Your task to perform on an android device: open app "Microsoft Authenticator" (install if not already installed), go to login, and select forgot password Image 0: 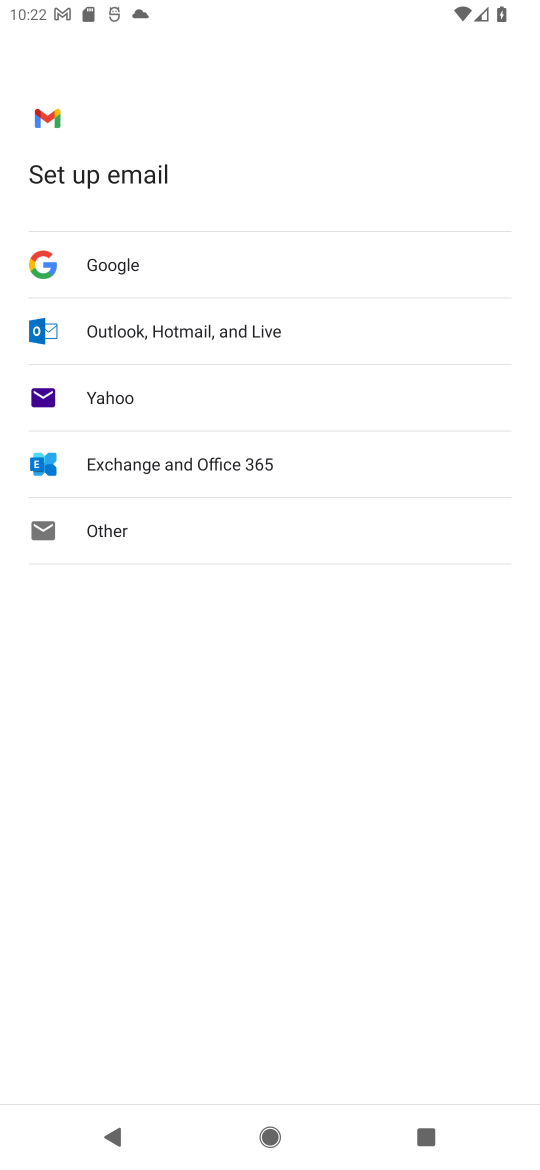
Step 0: press home button
Your task to perform on an android device: open app "Microsoft Authenticator" (install if not already installed), go to login, and select forgot password Image 1: 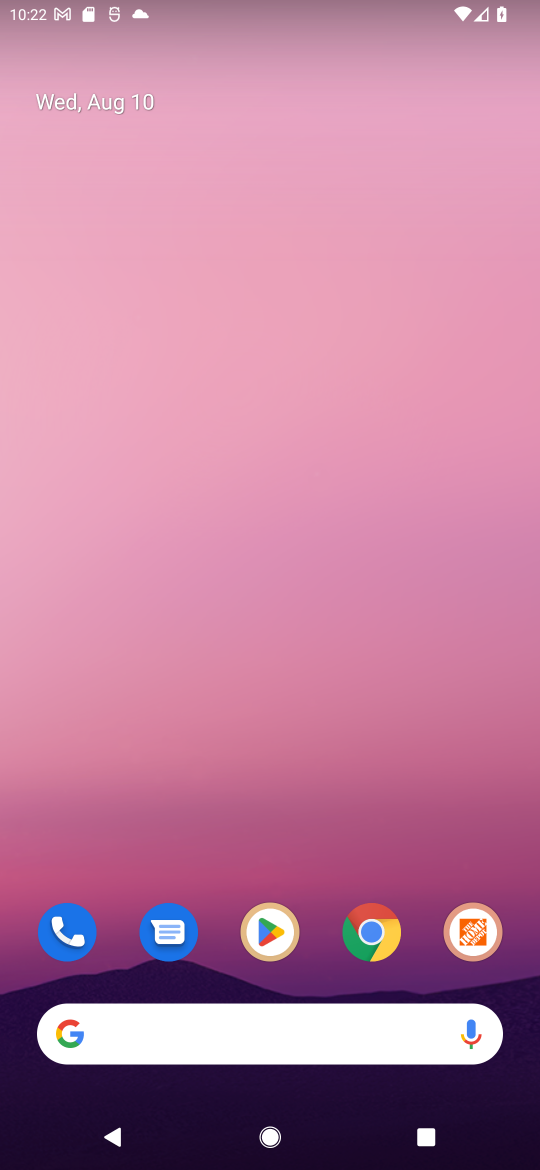
Step 1: click (282, 940)
Your task to perform on an android device: open app "Microsoft Authenticator" (install if not already installed), go to login, and select forgot password Image 2: 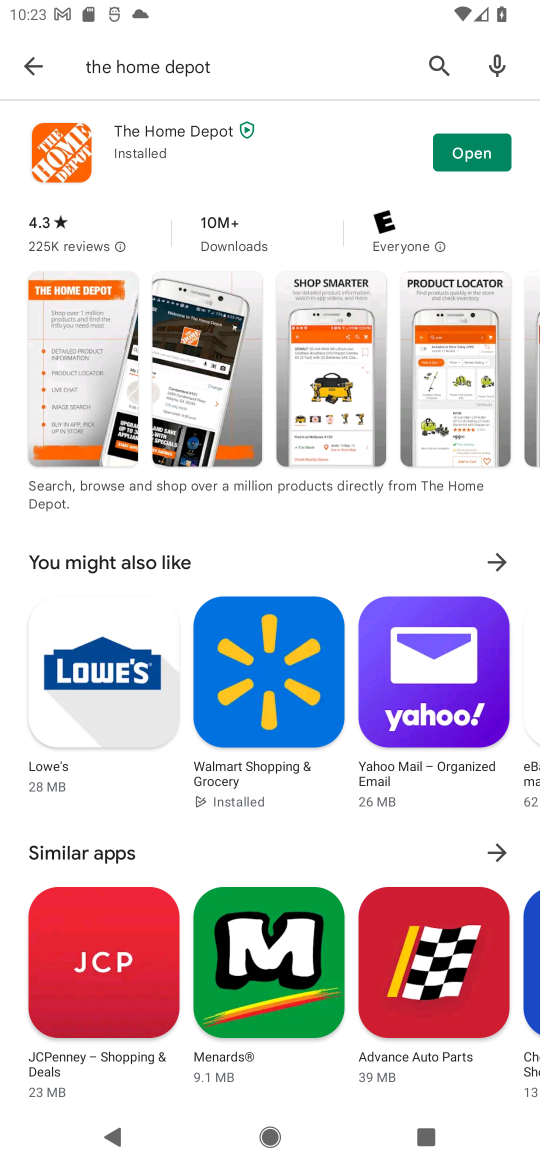
Step 2: click (419, 69)
Your task to perform on an android device: open app "Microsoft Authenticator" (install if not already installed), go to login, and select forgot password Image 3: 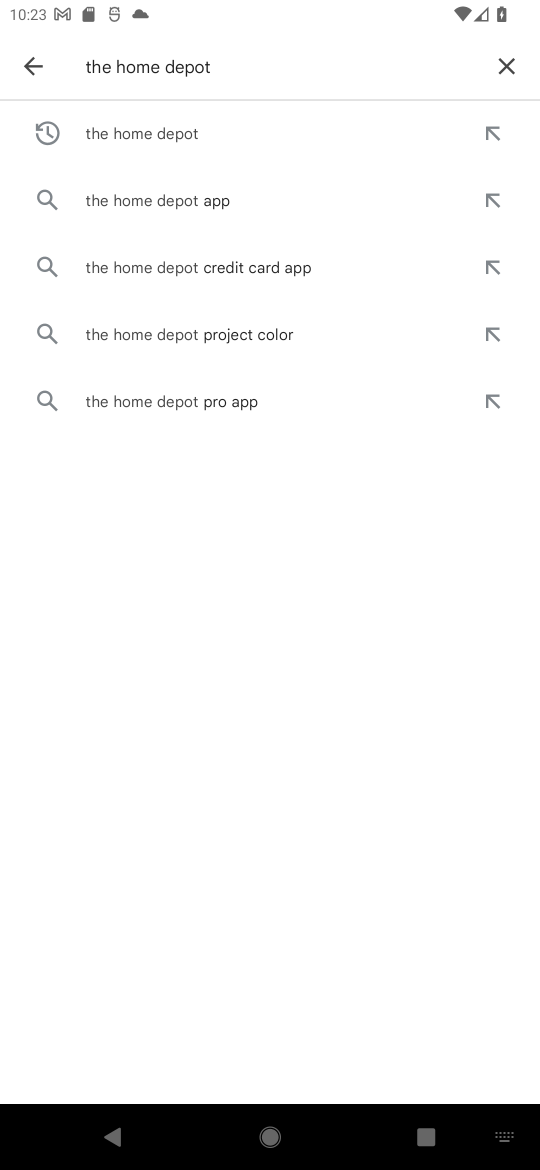
Step 3: click (514, 70)
Your task to perform on an android device: open app "Microsoft Authenticator" (install if not already installed), go to login, and select forgot password Image 4: 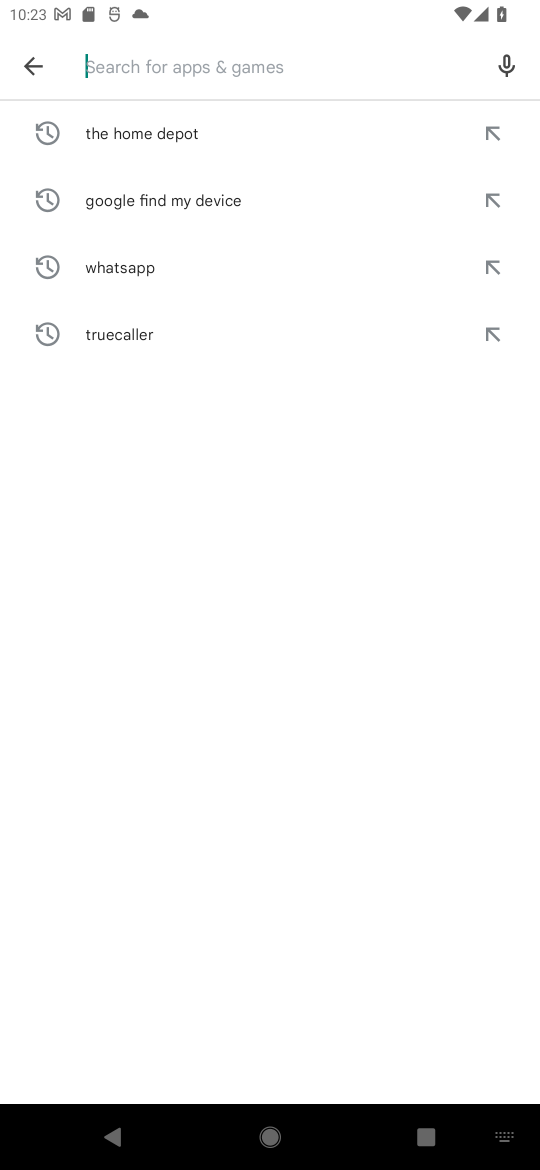
Step 4: type "microsoft authenticator"
Your task to perform on an android device: open app "Microsoft Authenticator" (install if not already installed), go to login, and select forgot password Image 5: 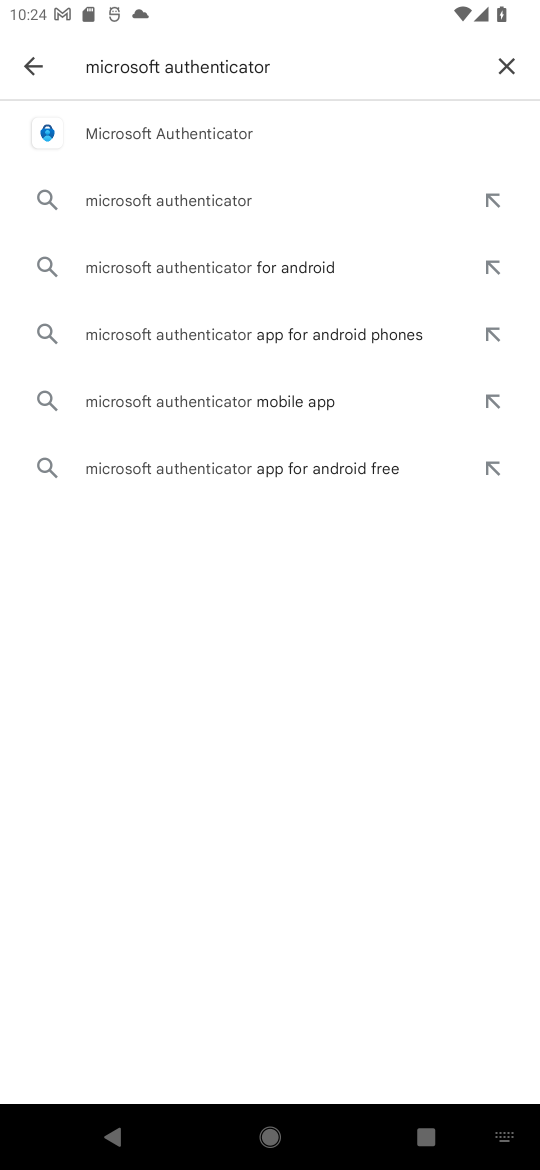
Step 5: click (240, 126)
Your task to perform on an android device: open app "Microsoft Authenticator" (install if not already installed), go to login, and select forgot password Image 6: 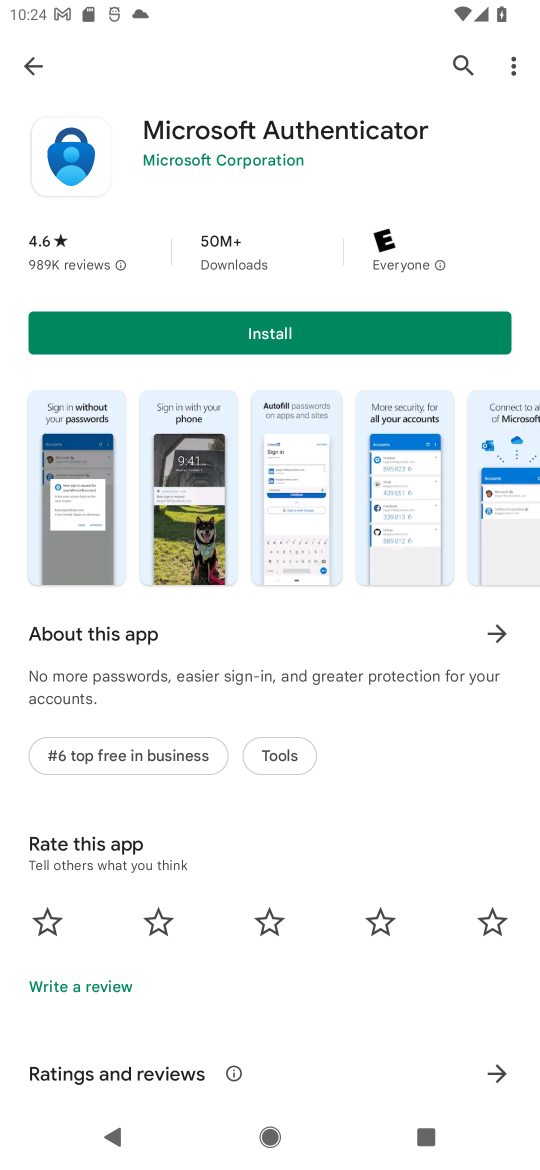
Step 6: click (317, 326)
Your task to perform on an android device: open app "Microsoft Authenticator" (install if not already installed), go to login, and select forgot password Image 7: 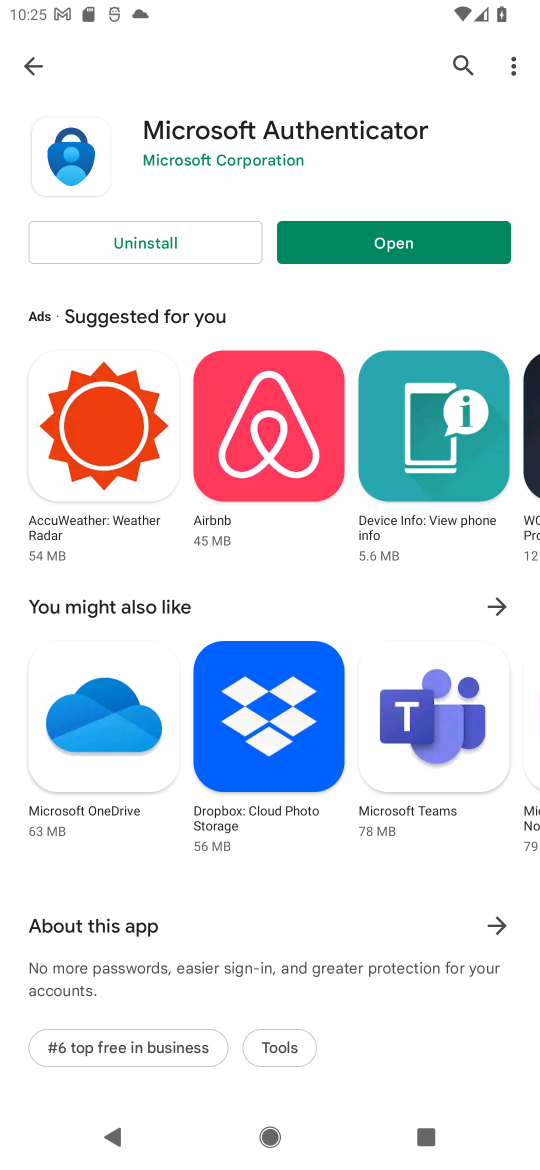
Step 7: click (362, 235)
Your task to perform on an android device: open app "Microsoft Authenticator" (install if not already installed), go to login, and select forgot password Image 8: 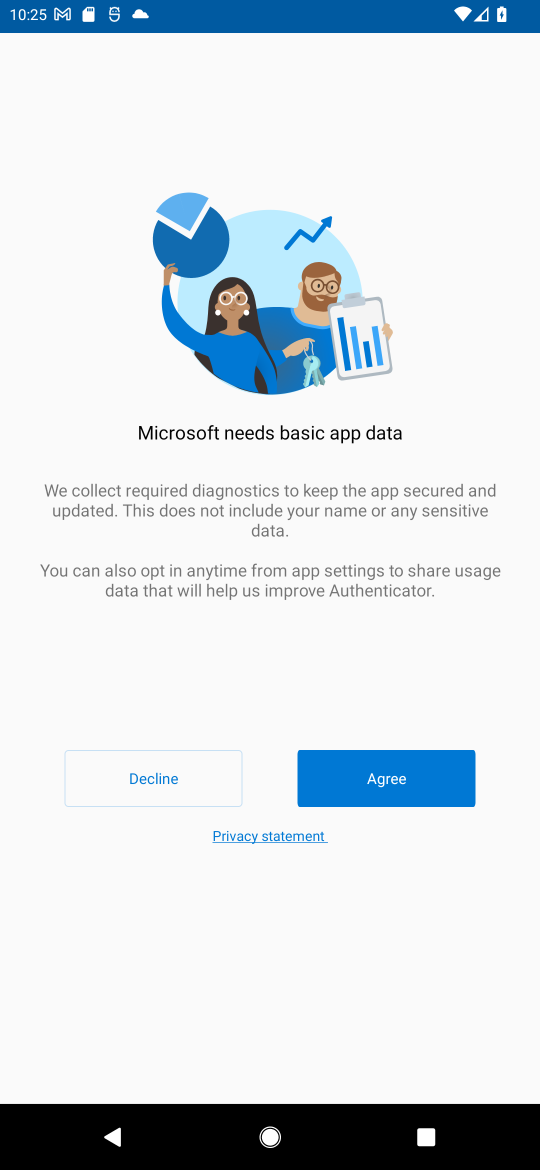
Step 8: click (396, 772)
Your task to perform on an android device: open app "Microsoft Authenticator" (install if not already installed), go to login, and select forgot password Image 9: 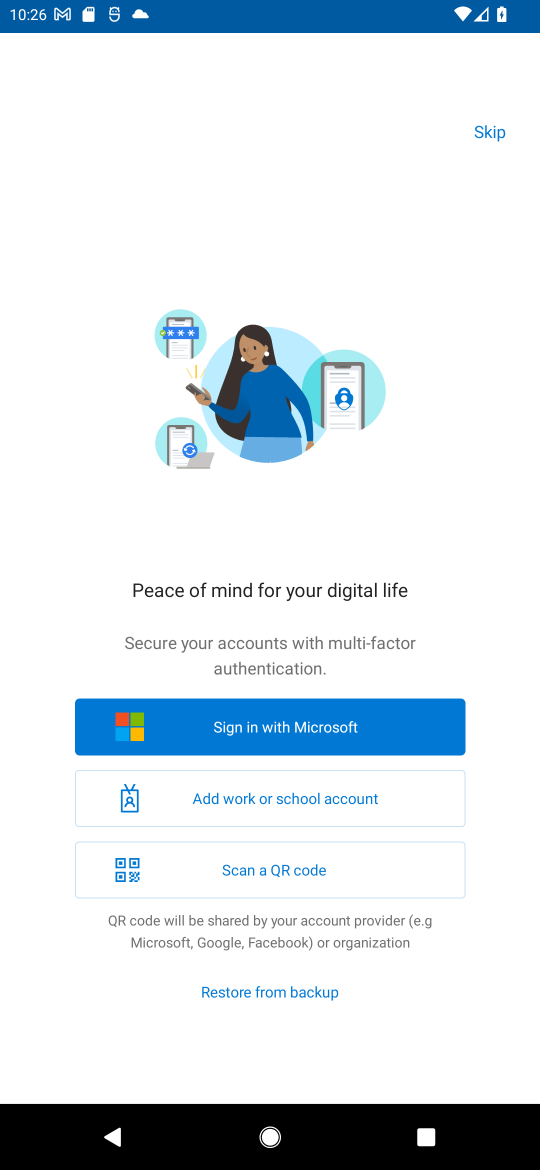
Step 9: click (493, 127)
Your task to perform on an android device: open app "Microsoft Authenticator" (install if not already installed), go to login, and select forgot password Image 10: 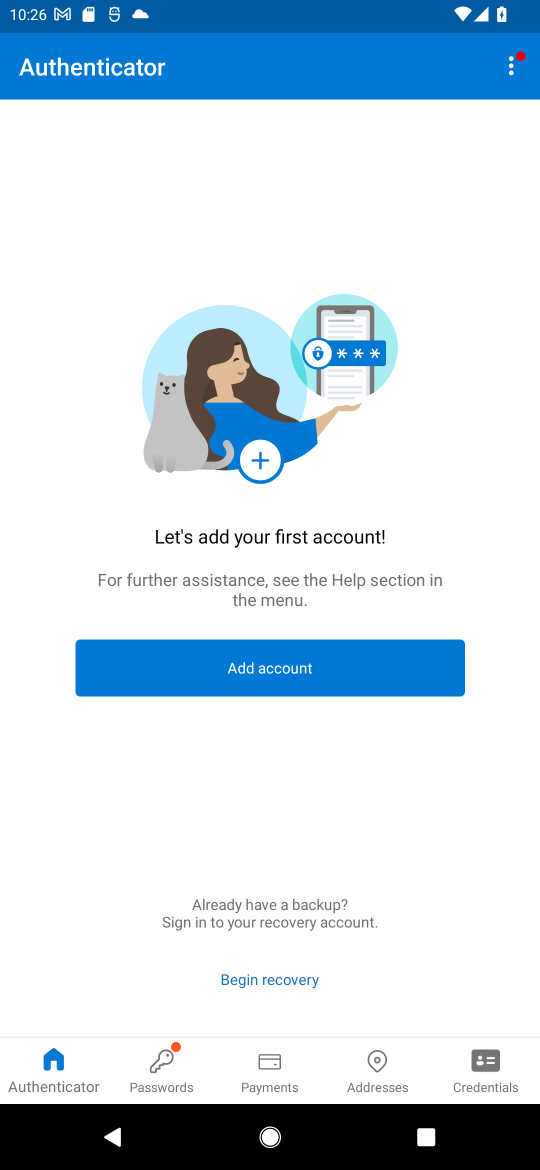
Step 10: click (505, 76)
Your task to perform on an android device: open app "Microsoft Authenticator" (install if not already installed), go to login, and select forgot password Image 11: 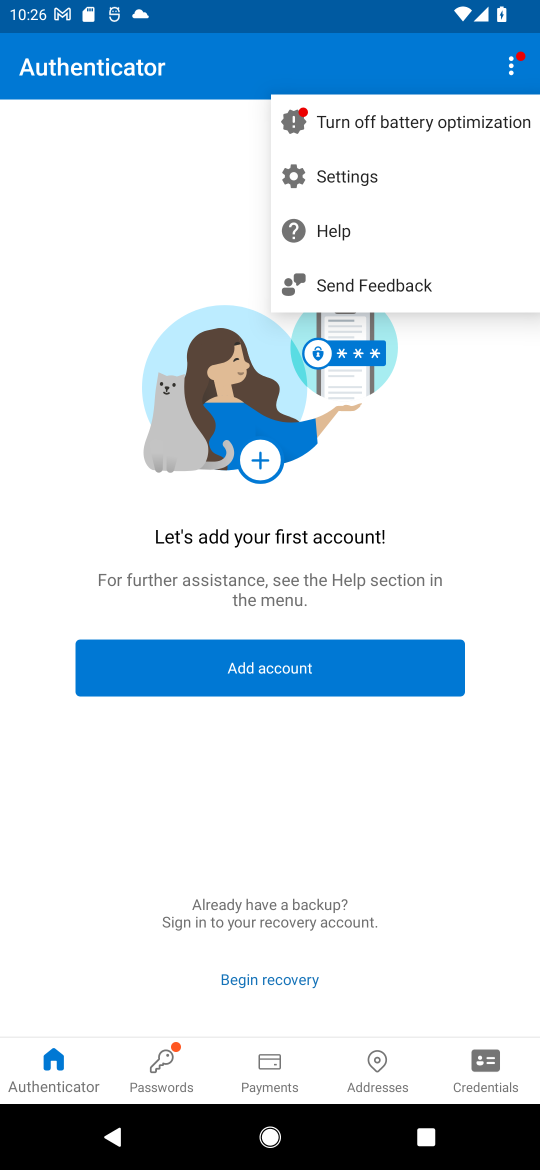
Step 11: click (492, 1067)
Your task to perform on an android device: open app "Microsoft Authenticator" (install if not already installed), go to login, and select forgot password Image 12: 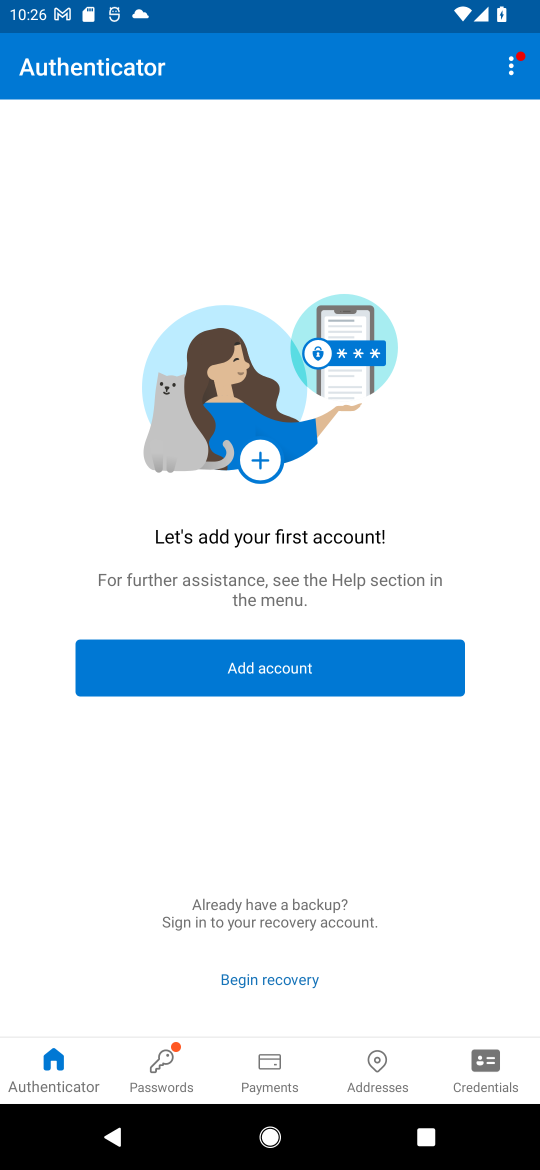
Step 12: click (492, 1067)
Your task to perform on an android device: open app "Microsoft Authenticator" (install if not already installed), go to login, and select forgot password Image 13: 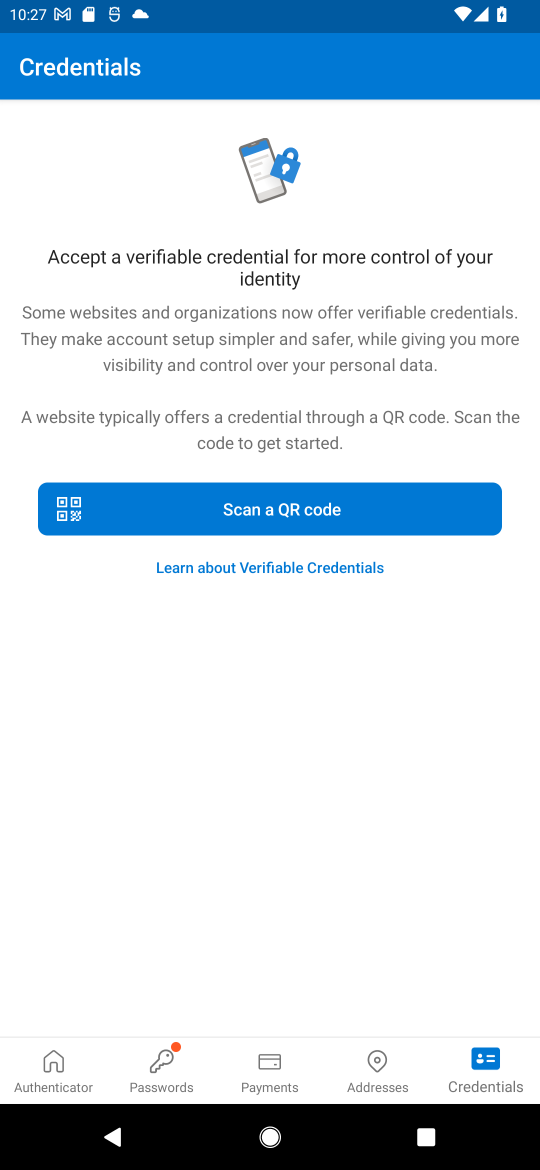
Step 13: click (51, 1061)
Your task to perform on an android device: open app "Microsoft Authenticator" (install if not already installed), go to login, and select forgot password Image 14: 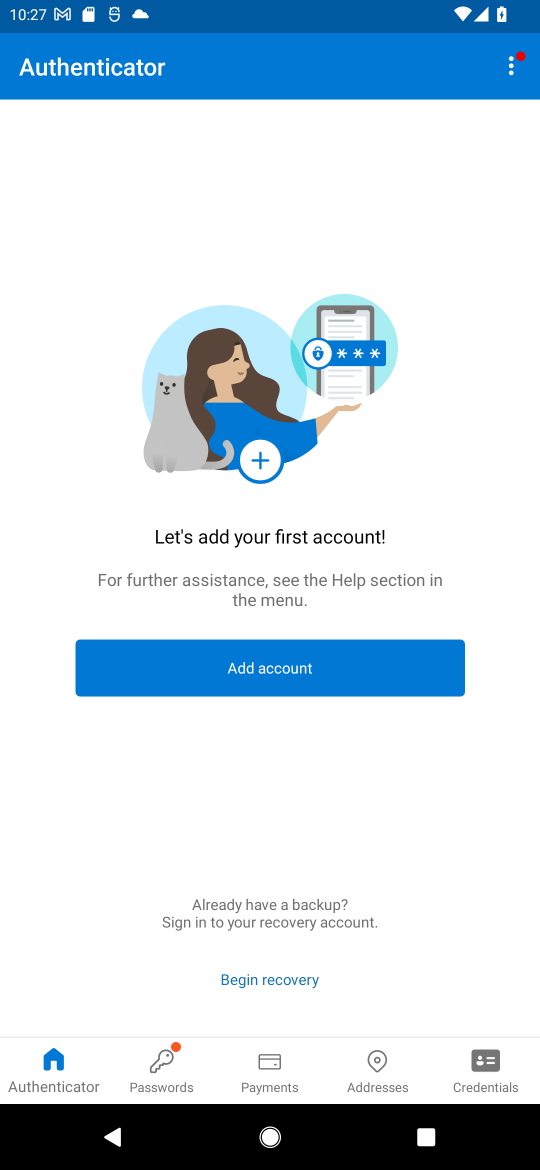
Step 14: click (521, 61)
Your task to perform on an android device: open app "Microsoft Authenticator" (install if not already installed), go to login, and select forgot password Image 15: 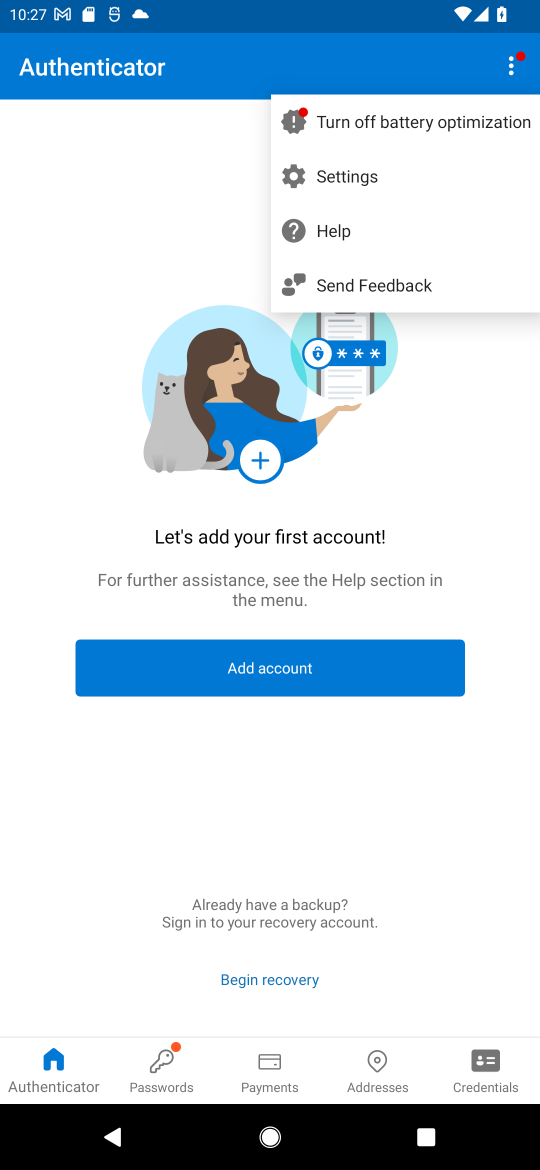
Step 15: click (419, 175)
Your task to perform on an android device: open app "Microsoft Authenticator" (install if not already installed), go to login, and select forgot password Image 16: 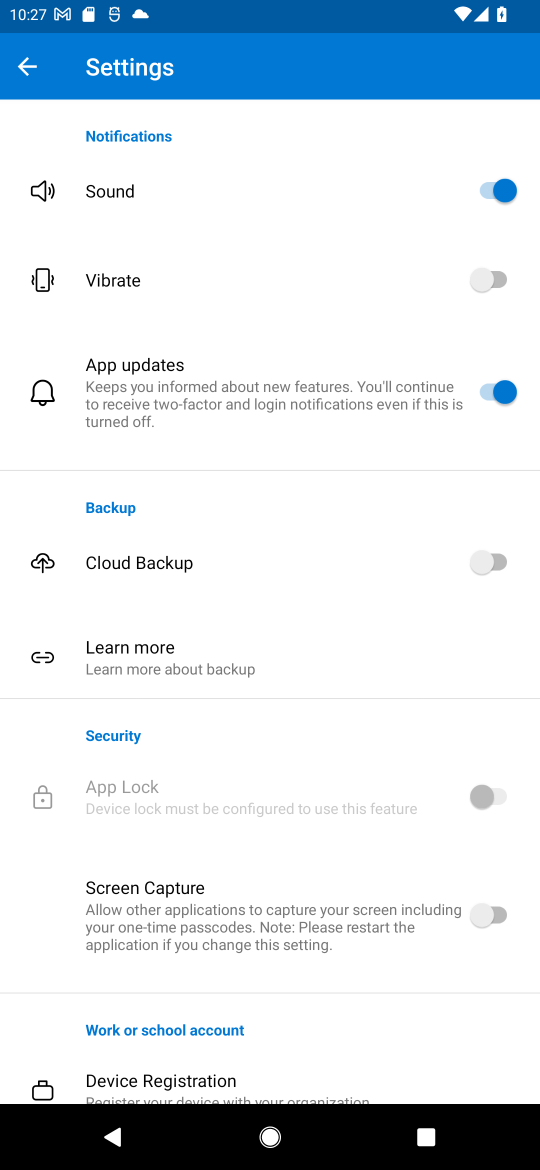
Step 16: task complete